Your task to perform on an android device: set default search engine in the chrome app Image 0: 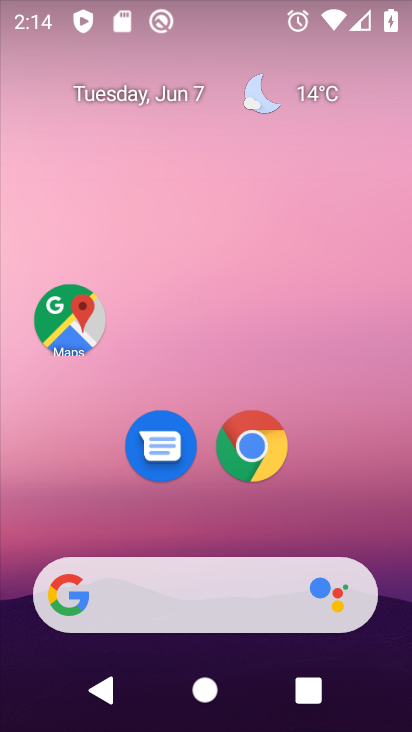
Step 0: click (257, 445)
Your task to perform on an android device: set default search engine in the chrome app Image 1: 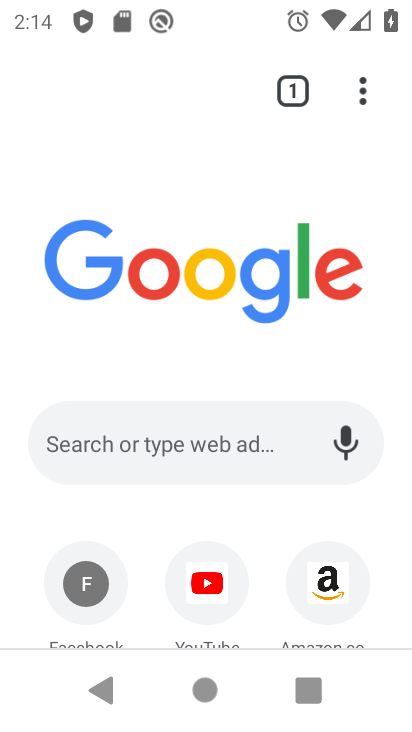
Step 1: click (361, 99)
Your task to perform on an android device: set default search engine in the chrome app Image 2: 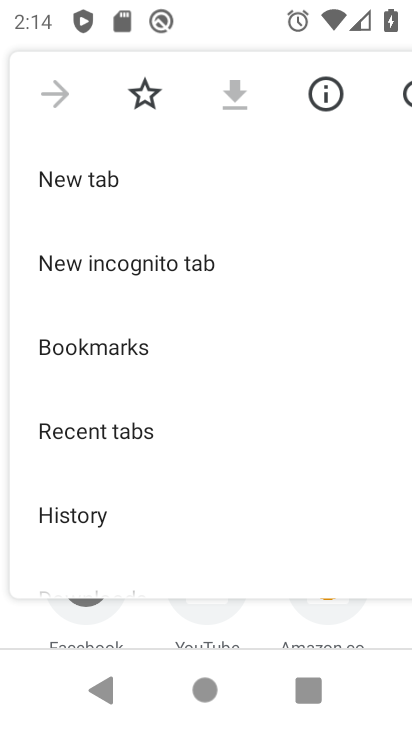
Step 2: drag from (193, 511) to (263, 130)
Your task to perform on an android device: set default search engine in the chrome app Image 3: 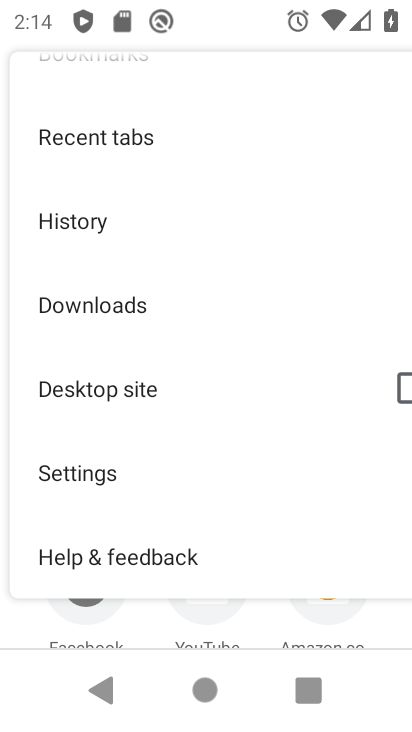
Step 3: click (91, 463)
Your task to perform on an android device: set default search engine in the chrome app Image 4: 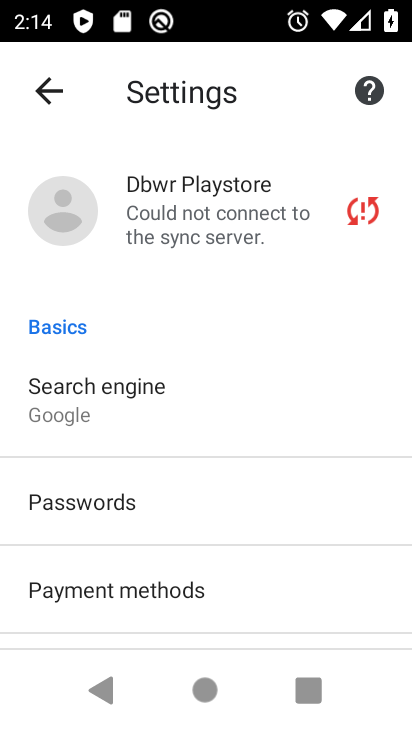
Step 4: click (49, 386)
Your task to perform on an android device: set default search engine in the chrome app Image 5: 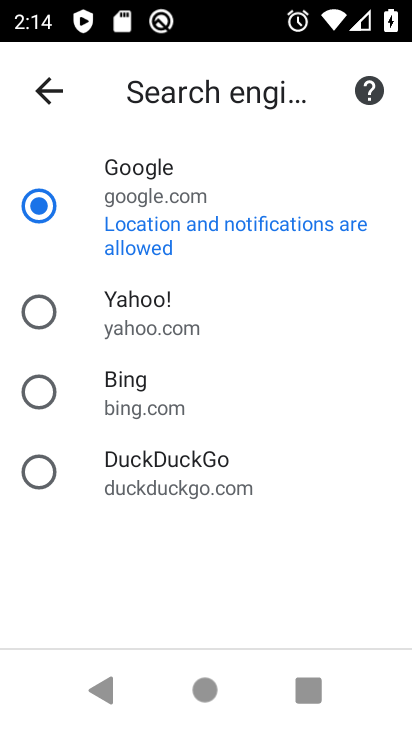
Step 5: click (50, 304)
Your task to perform on an android device: set default search engine in the chrome app Image 6: 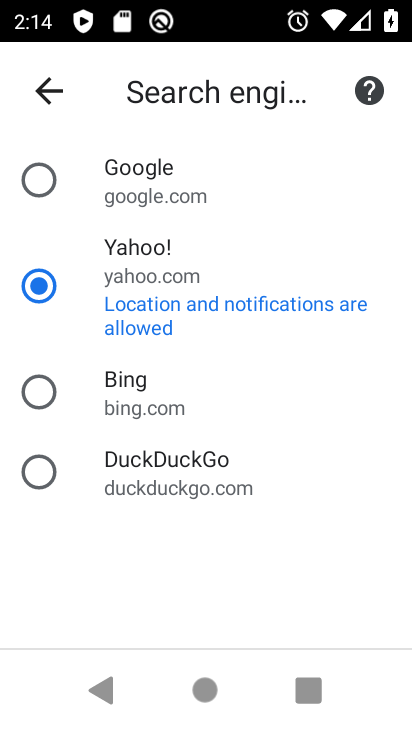
Step 6: task complete